Your task to perform on an android device: Search for seafood restaurants on Google Maps Image 0: 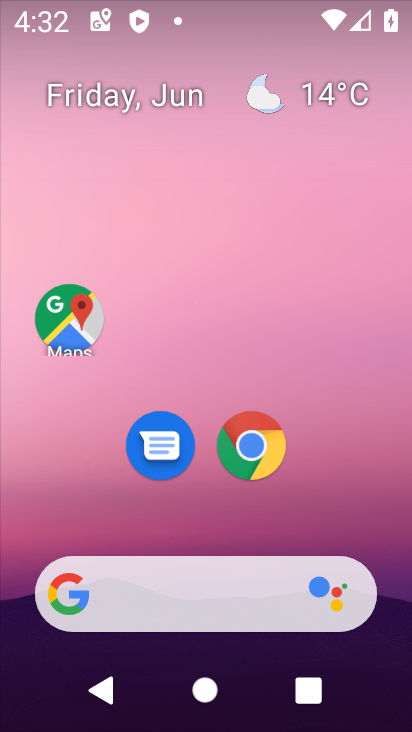
Step 0: click (87, 311)
Your task to perform on an android device: Search for seafood restaurants on Google Maps Image 1: 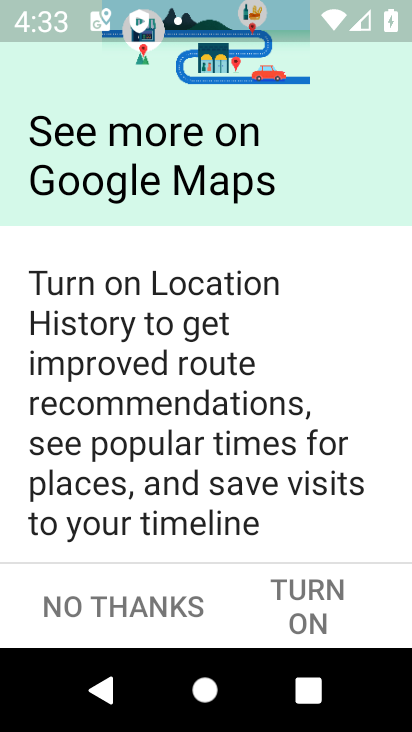
Step 1: click (98, 600)
Your task to perform on an android device: Search for seafood restaurants on Google Maps Image 2: 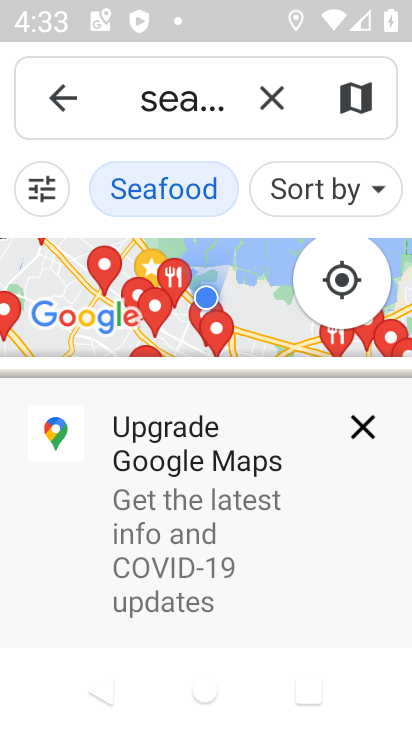
Step 2: task complete